Your task to perform on an android device: turn off javascript in the chrome app Image 0: 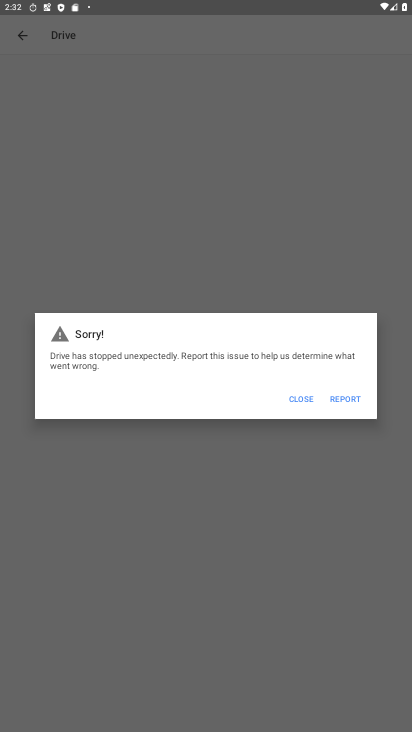
Step 0: press home button
Your task to perform on an android device: turn off javascript in the chrome app Image 1: 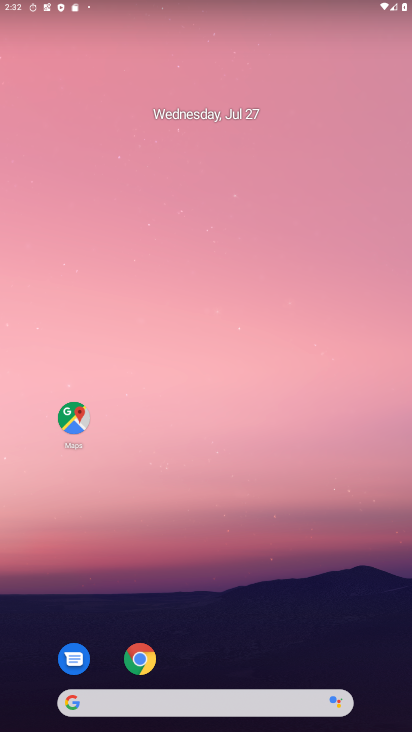
Step 1: click (140, 658)
Your task to perform on an android device: turn off javascript in the chrome app Image 2: 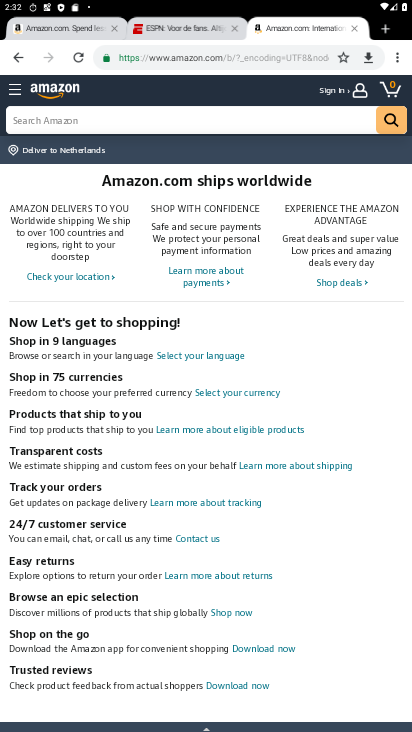
Step 2: click (397, 59)
Your task to perform on an android device: turn off javascript in the chrome app Image 3: 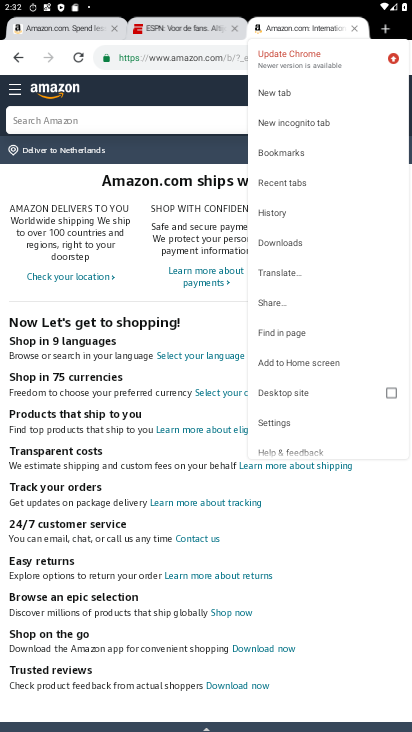
Step 3: click (269, 419)
Your task to perform on an android device: turn off javascript in the chrome app Image 4: 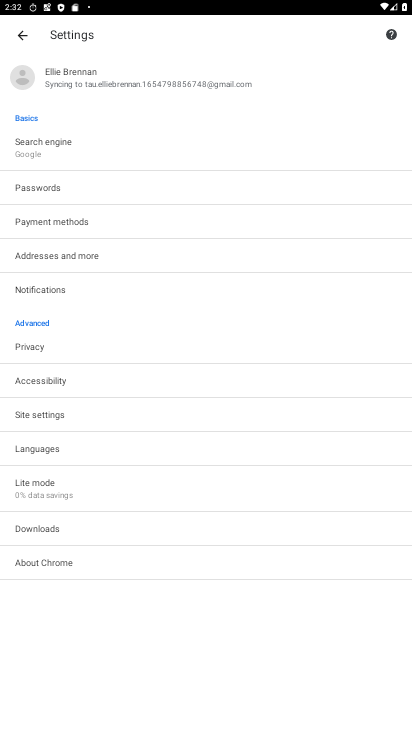
Step 4: click (32, 412)
Your task to perform on an android device: turn off javascript in the chrome app Image 5: 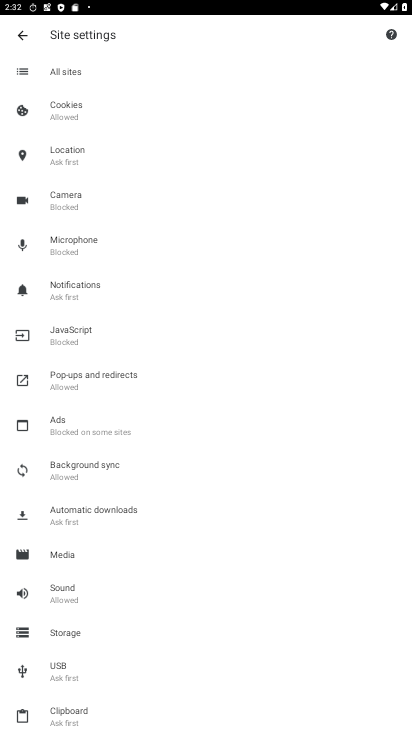
Step 5: click (75, 327)
Your task to perform on an android device: turn off javascript in the chrome app Image 6: 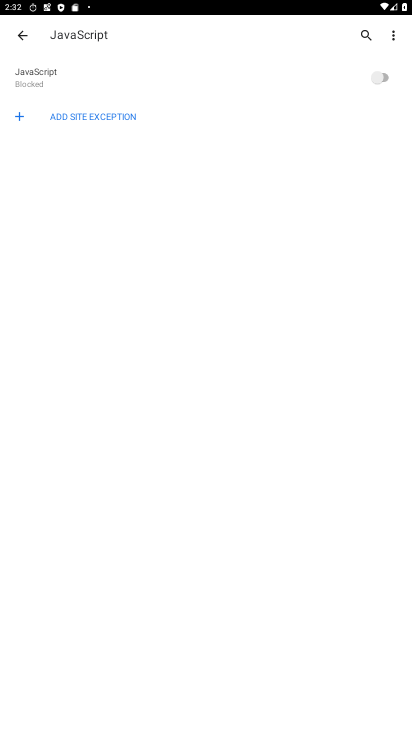
Step 6: task complete